Your task to perform on an android device: turn off smart reply in the gmail app Image 0: 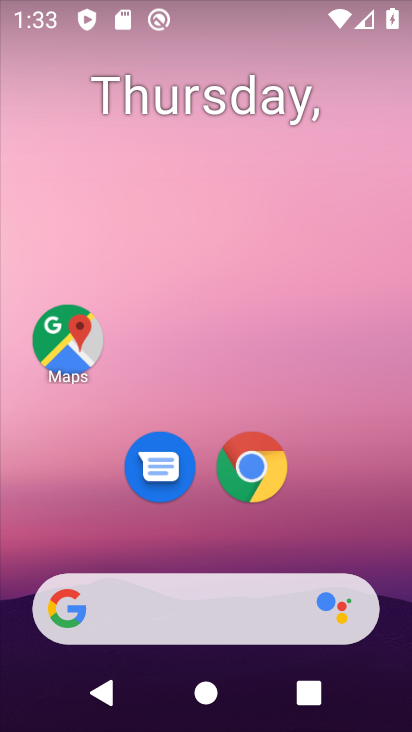
Step 0: drag from (364, 492) to (299, 156)
Your task to perform on an android device: turn off smart reply in the gmail app Image 1: 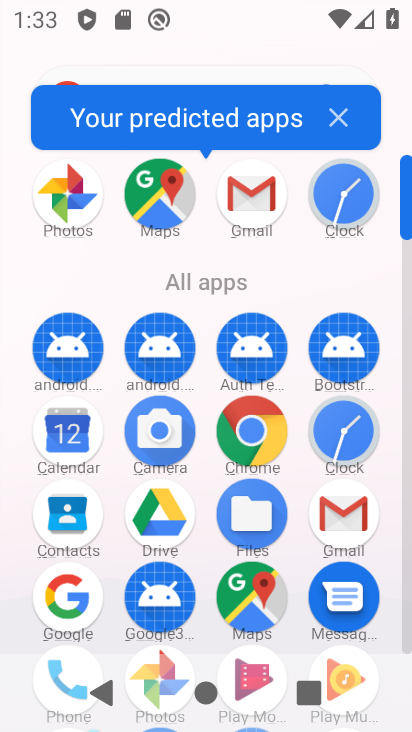
Step 1: click (350, 517)
Your task to perform on an android device: turn off smart reply in the gmail app Image 2: 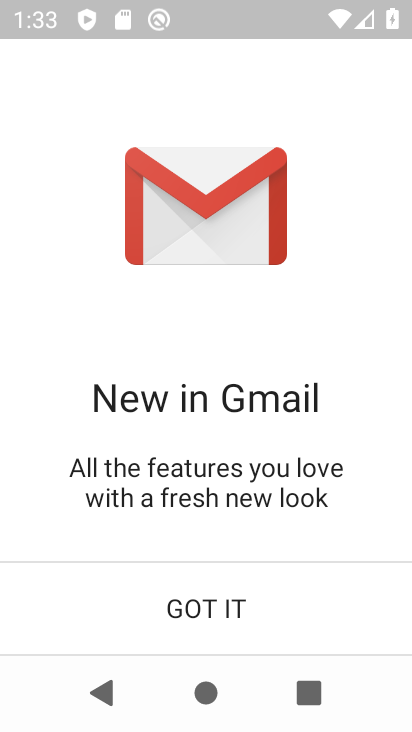
Step 2: click (195, 606)
Your task to perform on an android device: turn off smart reply in the gmail app Image 3: 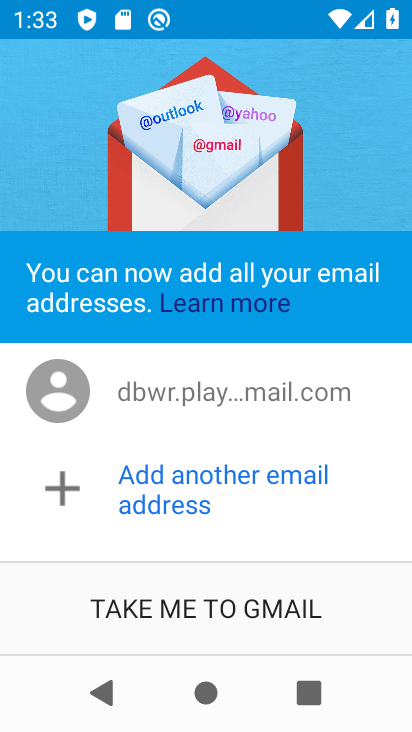
Step 3: click (174, 603)
Your task to perform on an android device: turn off smart reply in the gmail app Image 4: 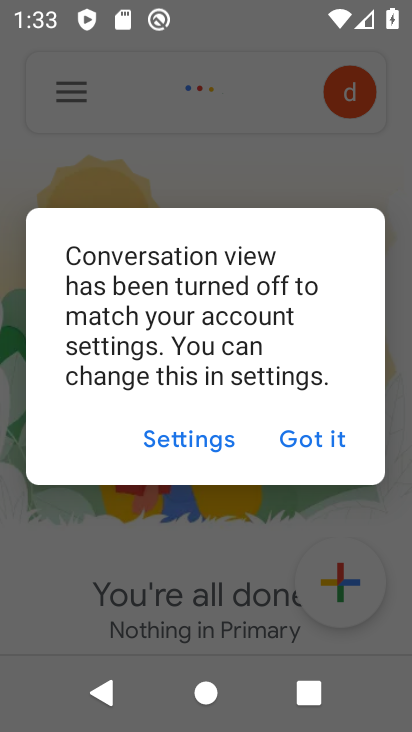
Step 4: click (312, 447)
Your task to perform on an android device: turn off smart reply in the gmail app Image 5: 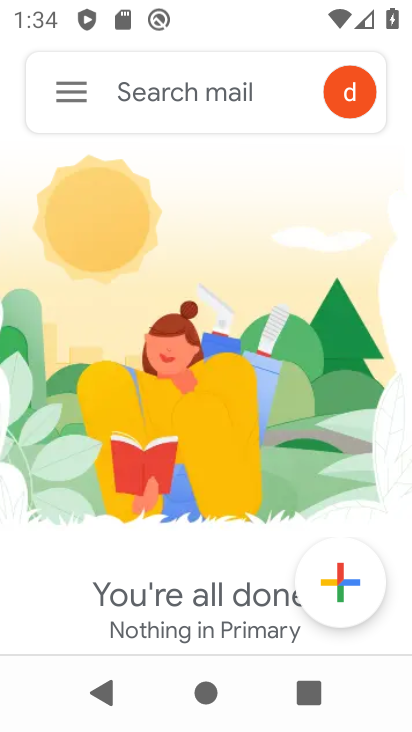
Step 5: click (82, 101)
Your task to perform on an android device: turn off smart reply in the gmail app Image 6: 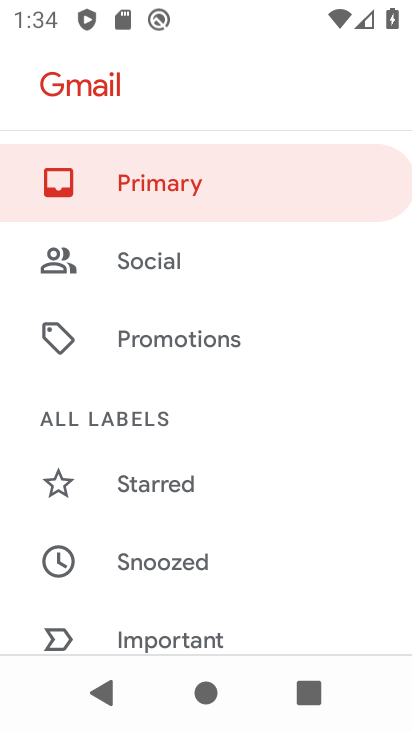
Step 6: drag from (278, 513) to (211, 250)
Your task to perform on an android device: turn off smart reply in the gmail app Image 7: 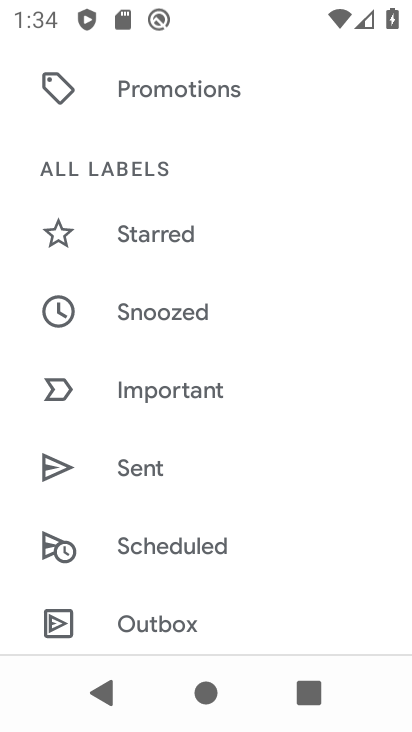
Step 7: drag from (276, 514) to (217, 323)
Your task to perform on an android device: turn off smart reply in the gmail app Image 8: 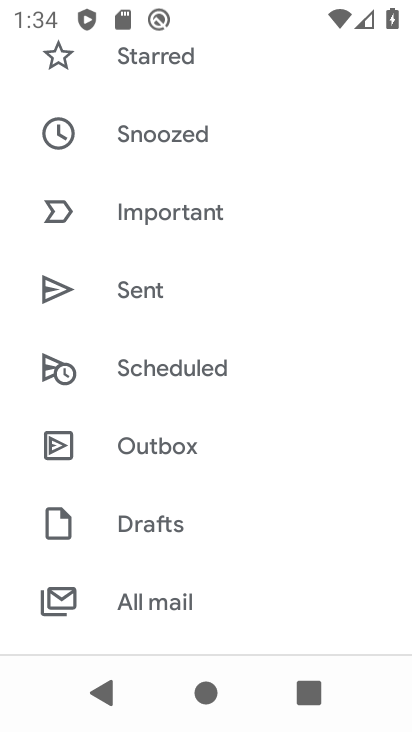
Step 8: drag from (258, 585) to (189, 345)
Your task to perform on an android device: turn off smart reply in the gmail app Image 9: 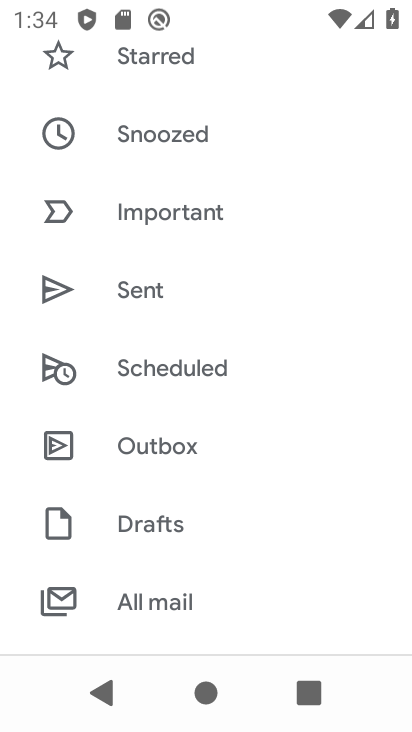
Step 9: drag from (230, 508) to (195, 208)
Your task to perform on an android device: turn off smart reply in the gmail app Image 10: 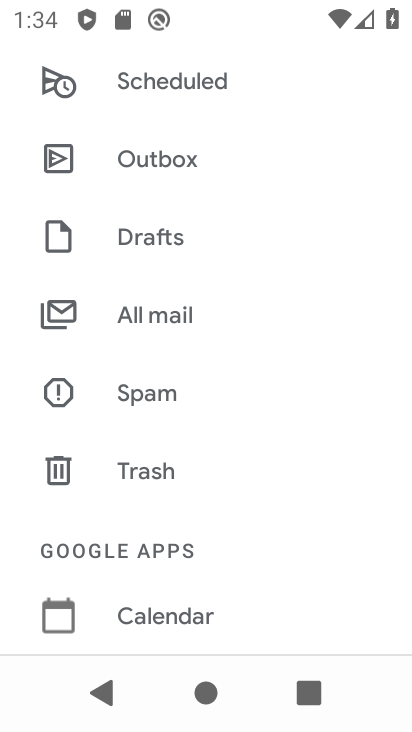
Step 10: drag from (243, 533) to (216, 185)
Your task to perform on an android device: turn off smart reply in the gmail app Image 11: 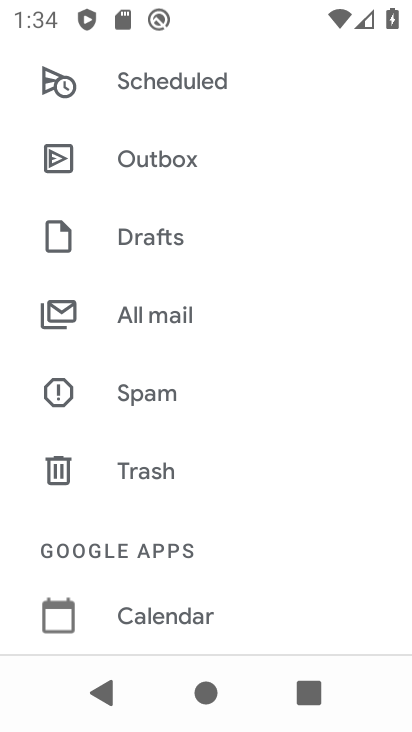
Step 11: drag from (227, 513) to (252, 38)
Your task to perform on an android device: turn off smart reply in the gmail app Image 12: 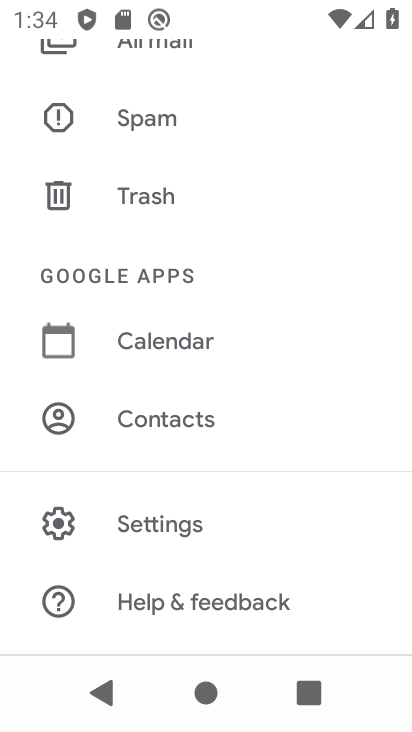
Step 12: click (176, 532)
Your task to perform on an android device: turn off smart reply in the gmail app Image 13: 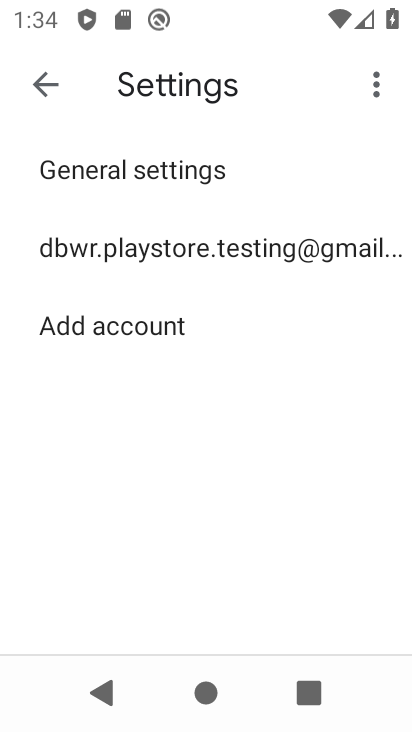
Step 13: click (128, 262)
Your task to perform on an android device: turn off smart reply in the gmail app Image 14: 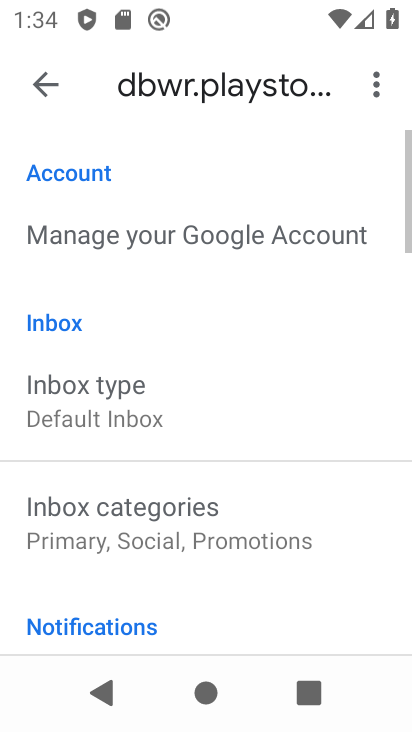
Step 14: drag from (271, 543) to (271, 34)
Your task to perform on an android device: turn off smart reply in the gmail app Image 15: 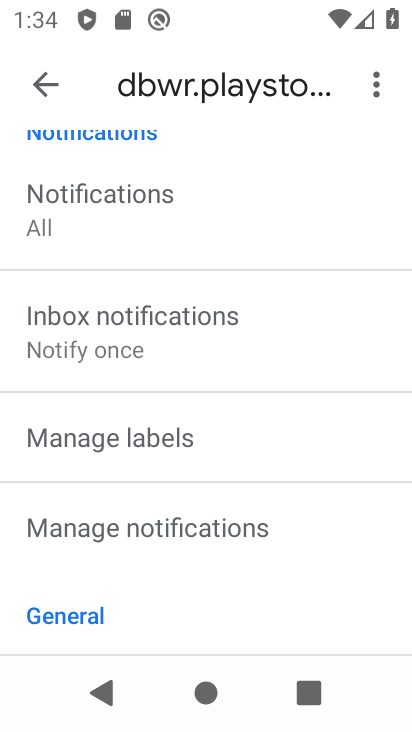
Step 15: drag from (287, 602) to (298, 288)
Your task to perform on an android device: turn off smart reply in the gmail app Image 16: 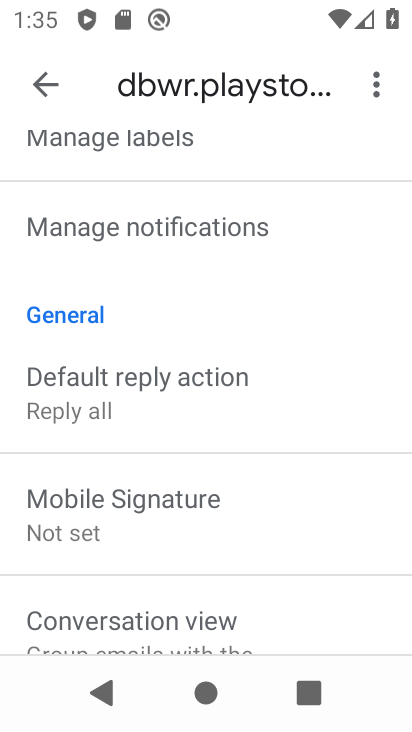
Step 16: drag from (296, 538) to (257, 193)
Your task to perform on an android device: turn off smart reply in the gmail app Image 17: 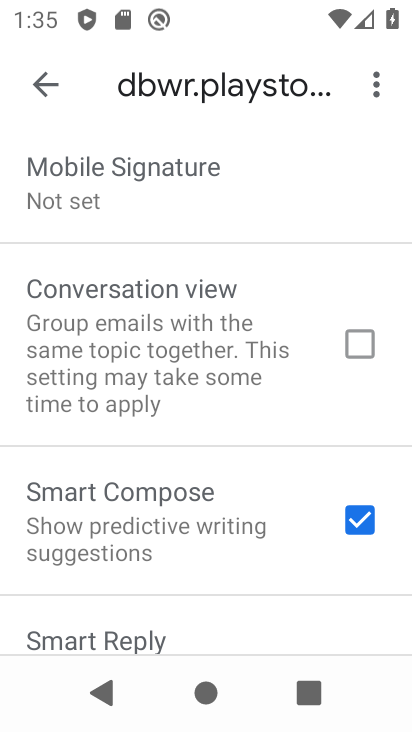
Step 17: drag from (282, 595) to (230, 292)
Your task to perform on an android device: turn off smart reply in the gmail app Image 18: 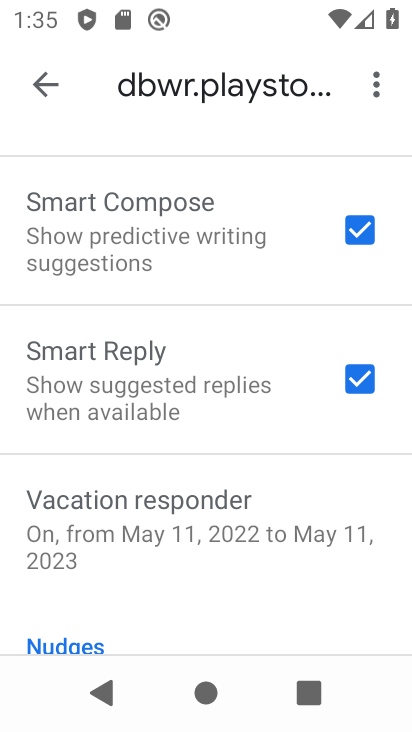
Step 18: click (352, 370)
Your task to perform on an android device: turn off smart reply in the gmail app Image 19: 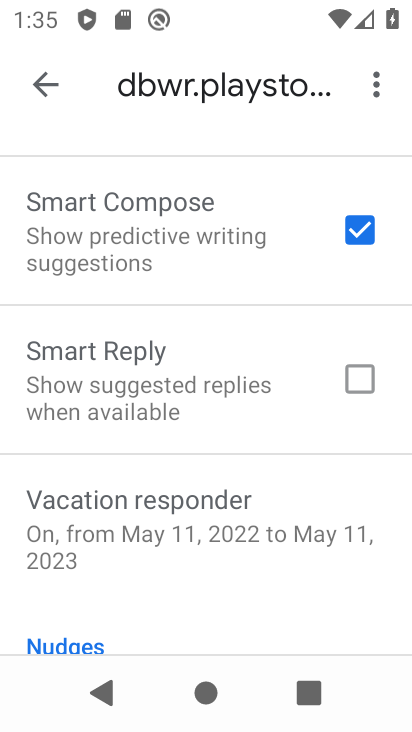
Step 19: task complete